Your task to perform on an android device: turn off picture-in-picture Image 0: 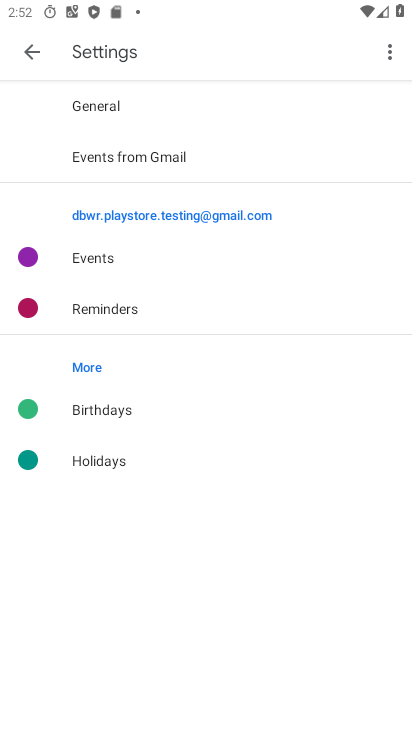
Step 0: press home button
Your task to perform on an android device: turn off picture-in-picture Image 1: 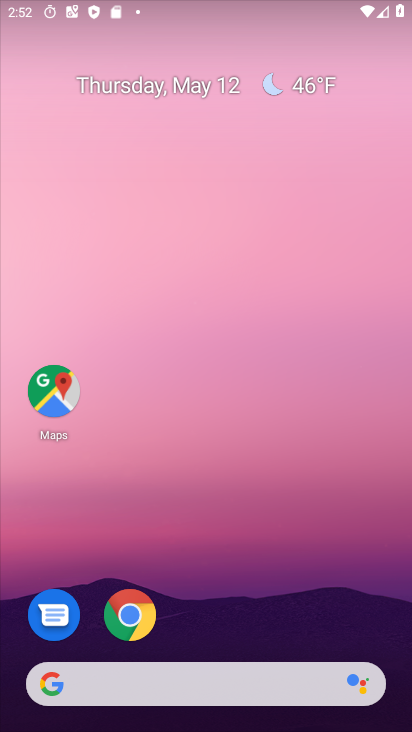
Step 1: drag from (136, 619) to (240, 451)
Your task to perform on an android device: turn off picture-in-picture Image 2: 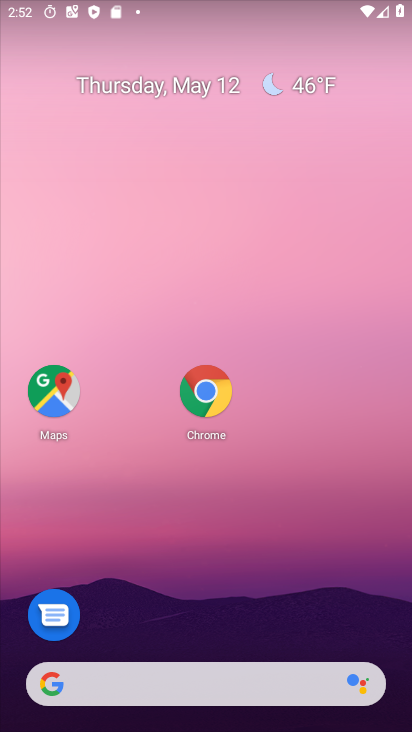
Step 2: click (211, 393)
Your task to perform on an android device: turn off picture-in-picture Image 3: 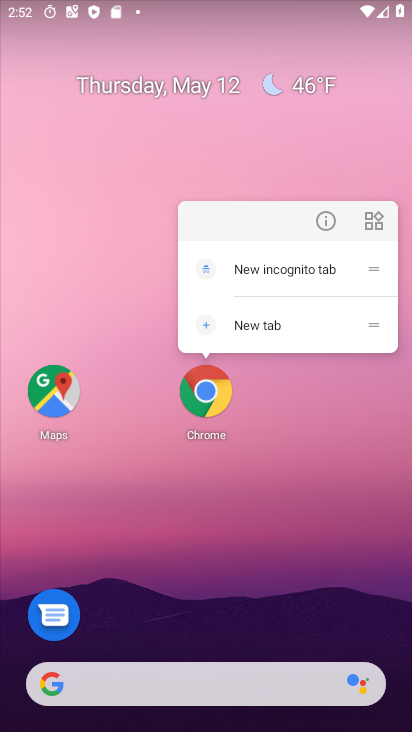
Step 3: click (320, 223)
Your task to perform on an android device: turn off picture-in-picture Image 4: 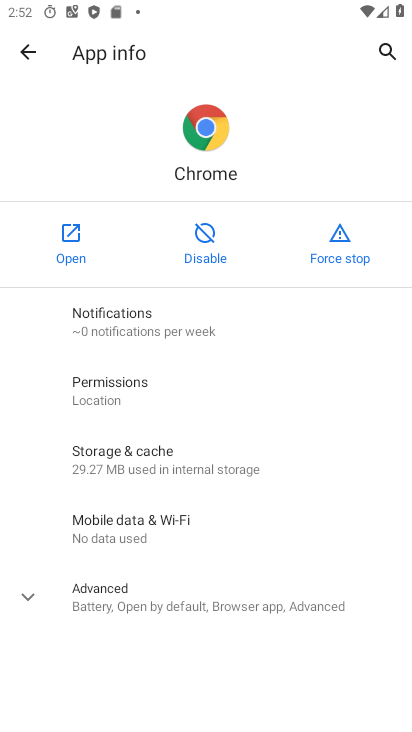
Step 4: click (93, 596)
Your task to perform on an android device: turn off picture-in-picture Image 5: 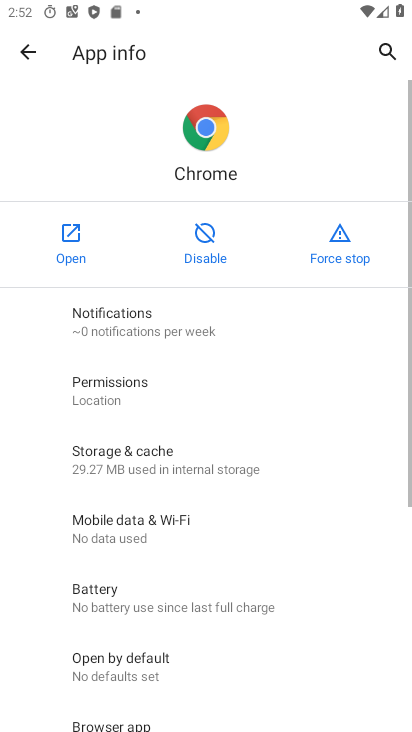
Step 5: drag from (294, 576) to (288, 57)
Your task to perform on an android device: turn off picture-in-picture Image 6: 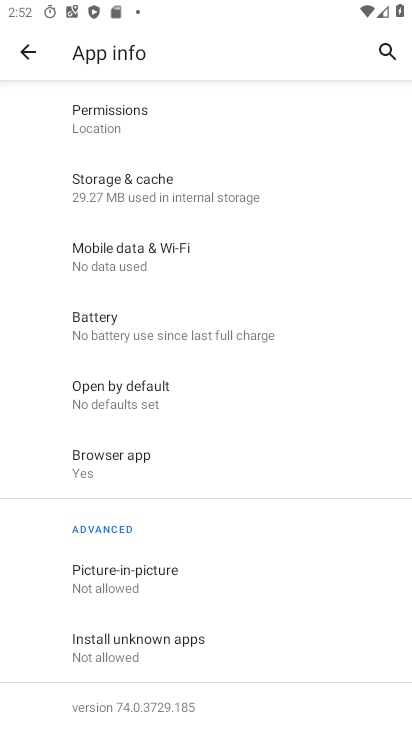
Step 6: click (143, 589)
Your task to perform on an android device: turn off picture-in-picture Image 7: 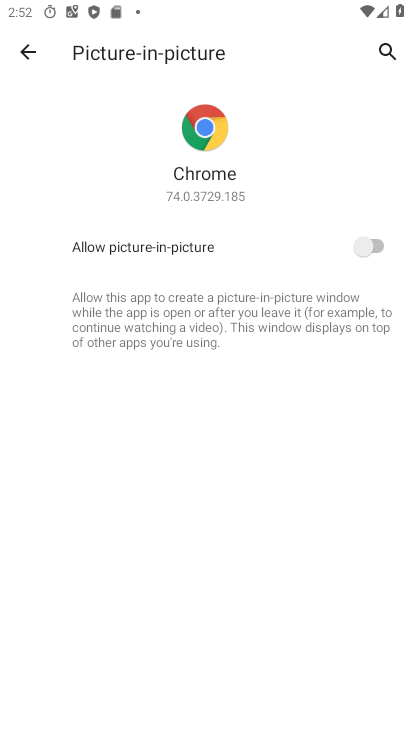
Step 7: task complete